Your task to perform on an android device: refresh tabs in the chrome app Image 0: 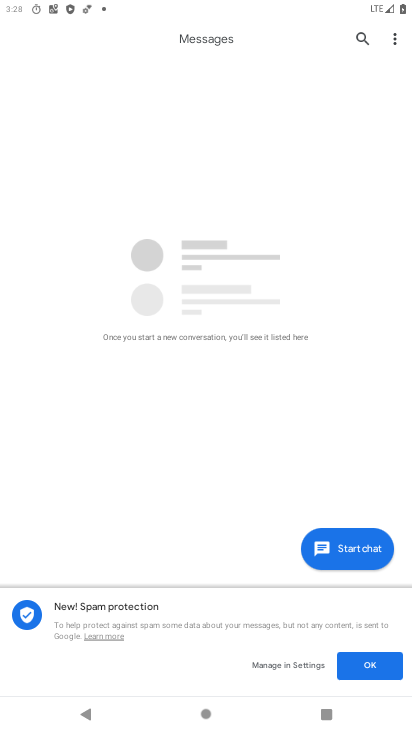
Step 0: press home button
Your task to perform on an android device: refresh tabs in the chrome app Image 1: 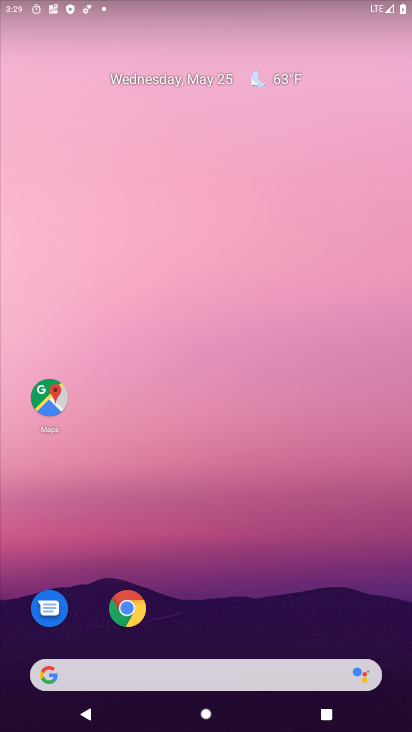
Step 1: click (124, 605)
Your task to perform on an android device: refresh tabs in the chrome app Image 2: 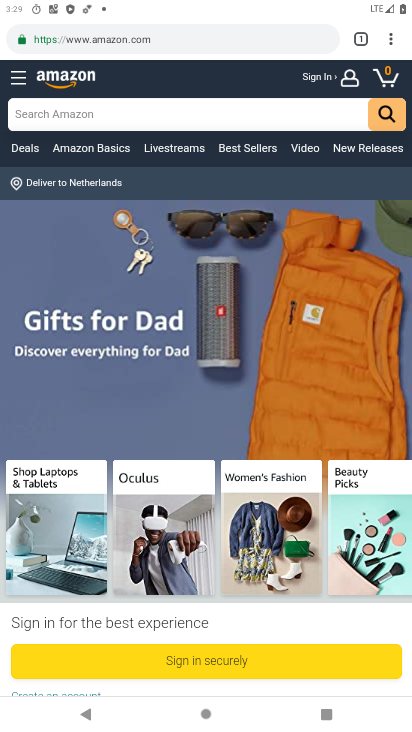
Step 2: click (389, 39)
Your task to perform on an android device: refresh tabs in the chrome app Image 3: 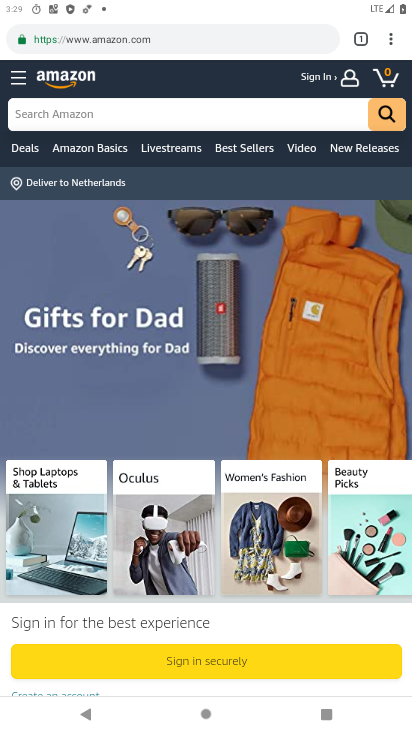
Step 3: task complete